Your task to perform on an android device: delete browsing data in the chrome app Image 0: 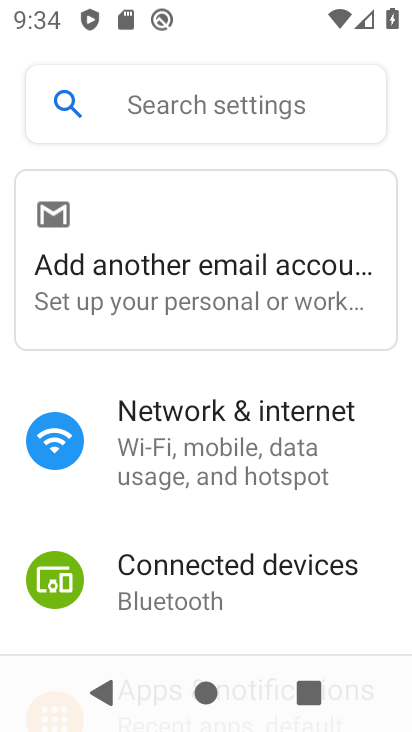
Step 0: press home button
Your task to perform on an android device: delete browsing data in the chrome app Image 1: 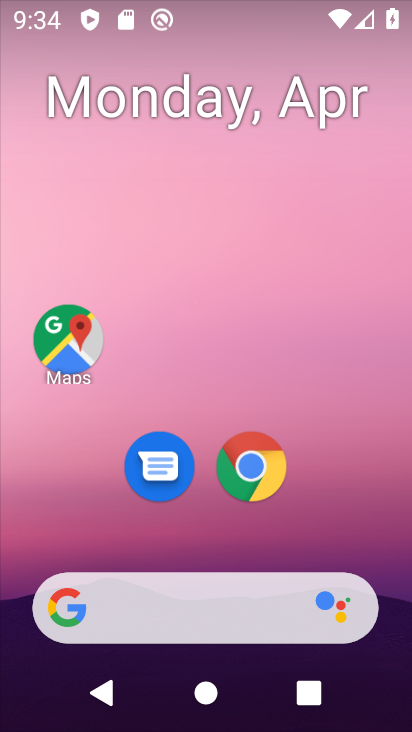
Step 1: click (255, 467)
Your task to perform on an android device: delete browsing data in the chrome app Image 2: 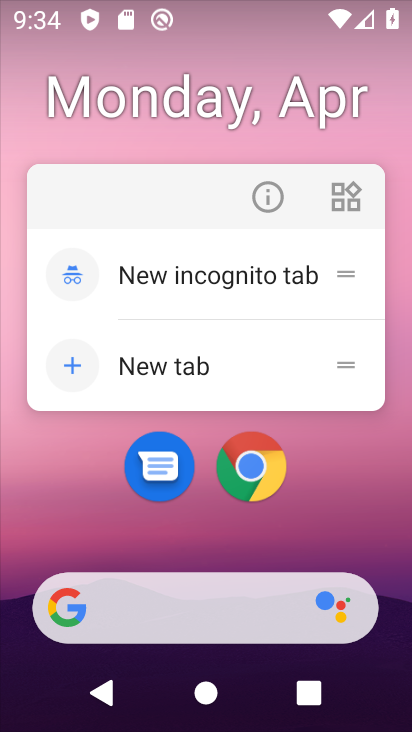
Step 2: click (255, 467)
Your task to perform on an android device: delete browsing data in the chrome app Image 3: 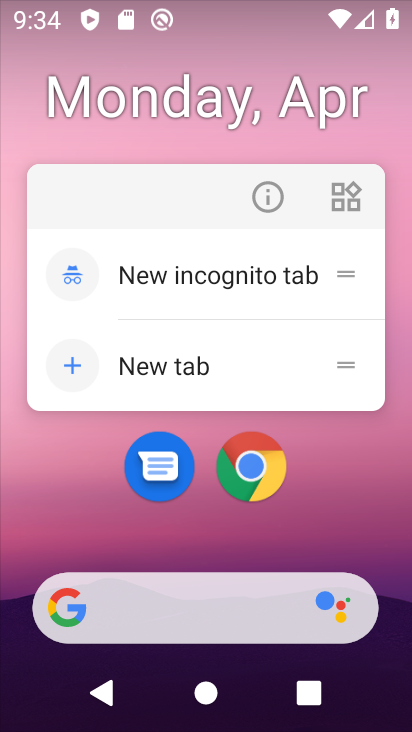
Step 3: click (255, 467)
Your task to perform on an android device: delete browsing data in the chrome app Image 4: 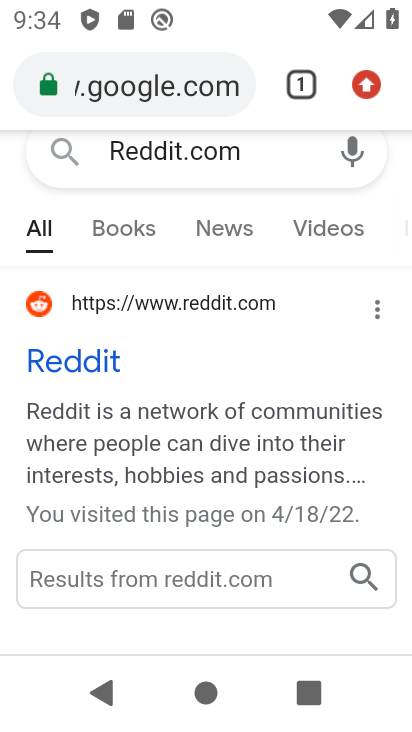
Step 4: click (373, 77)
Your task to perform on an android device: delete browsing data in the chrome app Image 5: 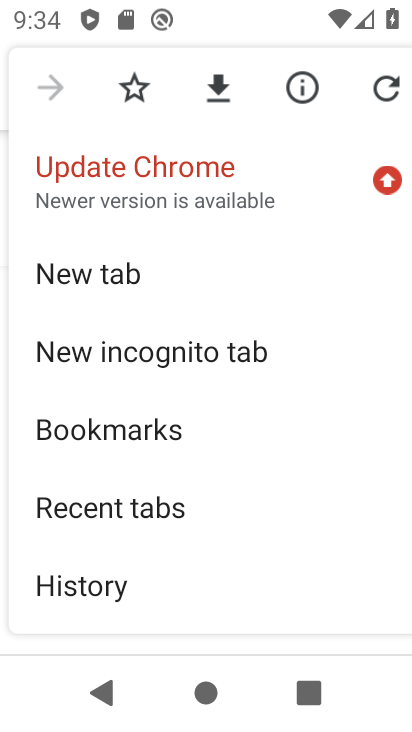
Step 5: drag from (241, 516) to (287, 313)
Your task to perform on an android device: delete browsing data in the chrome app Image 6: 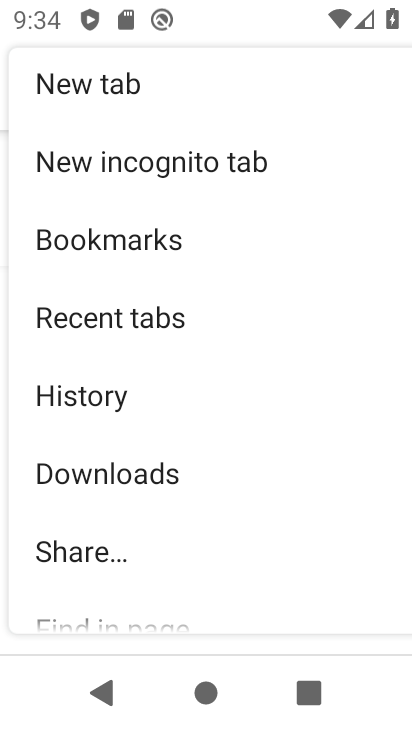
Step 6: drag from (228, 499) to (263, 356)
Your task to perform on an android device: delete browsing data in the chrome app Image 7: 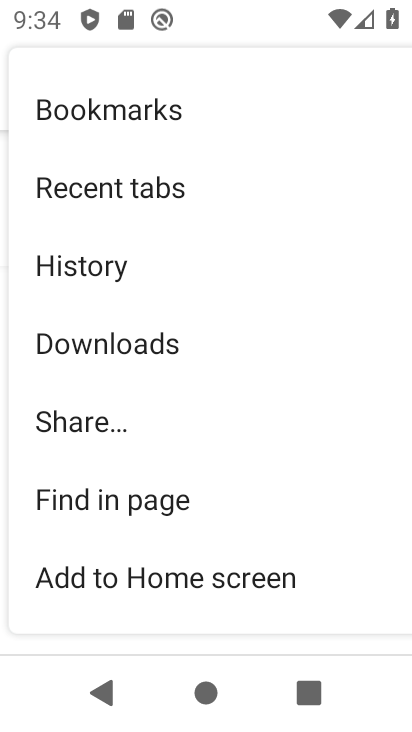
Step 7: drag from (214, 477) to (257, 350)
Your task to perform on an android device: delete browsing data in the chrome app Image 8: 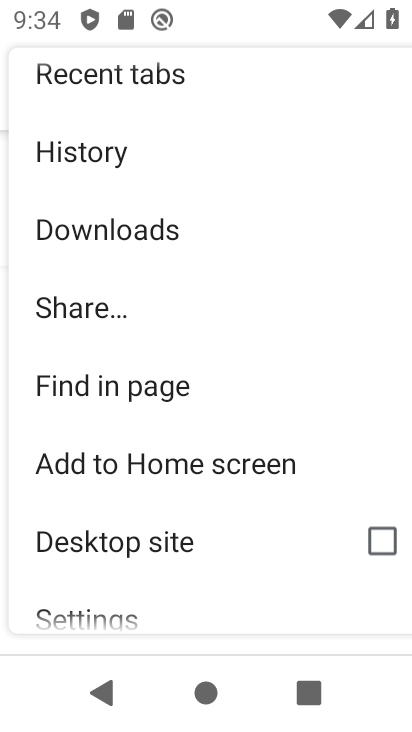
Step 8: drag from (210, 502) to (247, 359)
Your task to perform on an android device: delete browsing data in the chrome app Image 9: 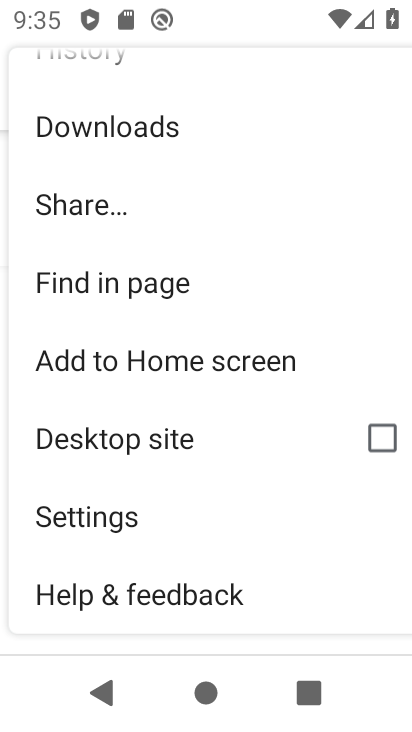
Step 9: click (113, 515)
Your task to perform on an android device: delete browsing data in the chrome app Image 10: 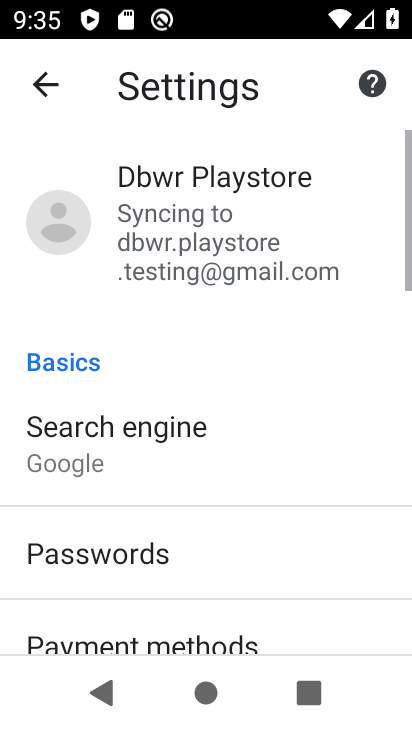
Step 10: drag from (174, 563) to (200, 388)
Your task to perform on an android device: delete browsing data in the chrome app Image 11: 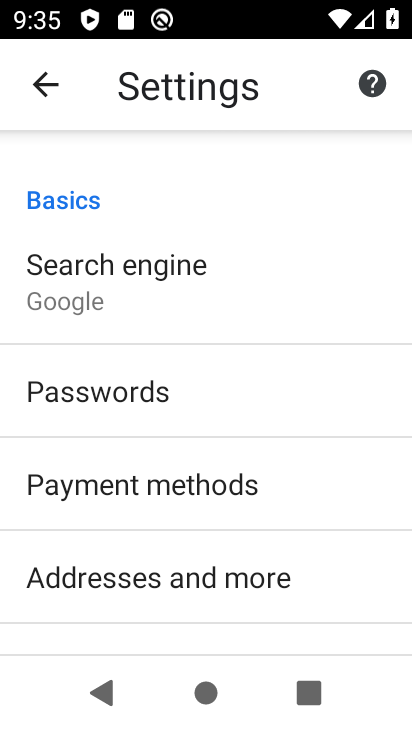
Step 11: drag from (217, 572) to (252, 448)
Your task to perform on an android device: delete browsing data in the chrome app Image 12: 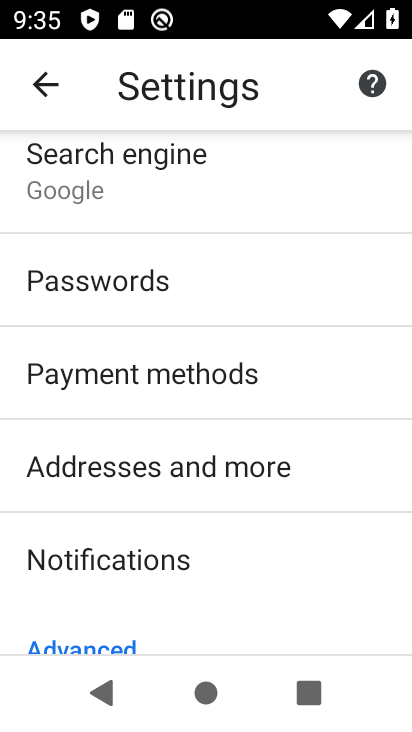
Step 12: drag from (222, 585) to (252, 442)
Your task to perform on an android device: delete browsing data in the chrome app Image 13: 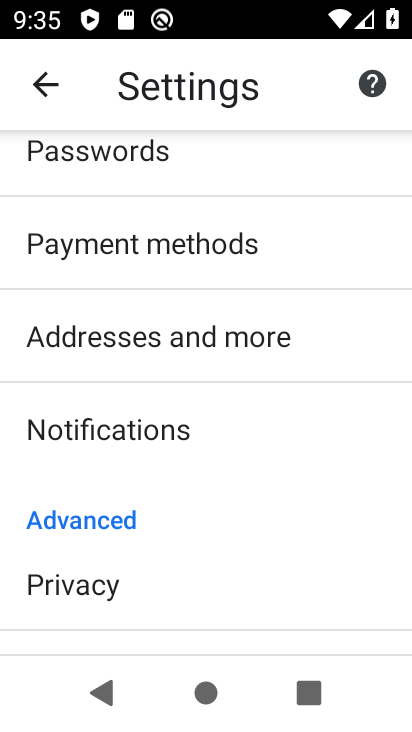
Step 13: drag from (263, 515) to (262, 422)
Your task to perform on an android device: delete browsing data in the chrome app Image 14: 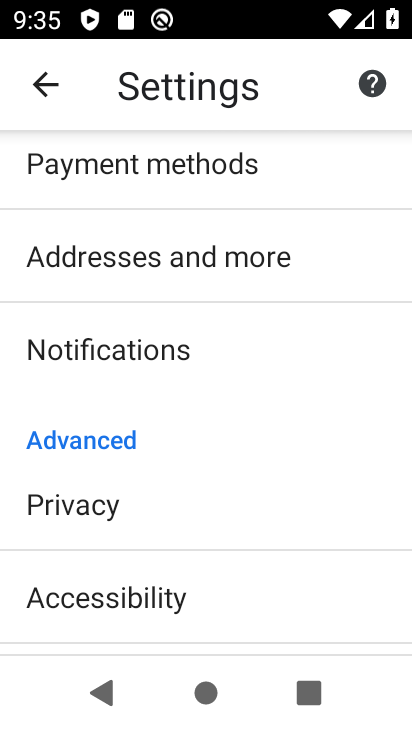
Step 14: click (104, 501)
Your task to perform on an android device: delete browsing data in the chrome app Image 15: 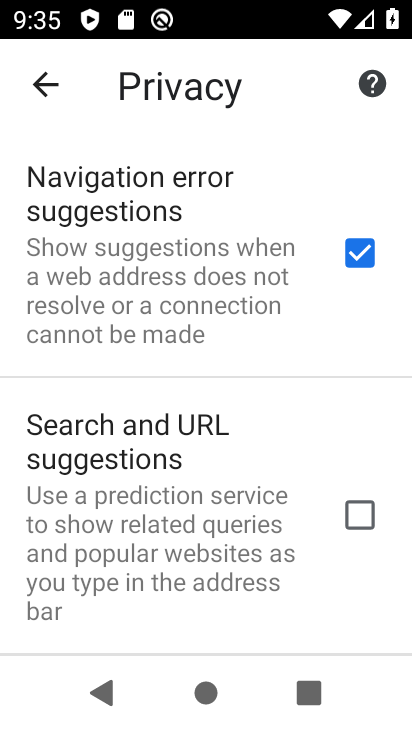
Step 15: drag from (149, 587) to (175, 306)
Your task to perform on an android device: delete browsing data in the chrome app Image 16: 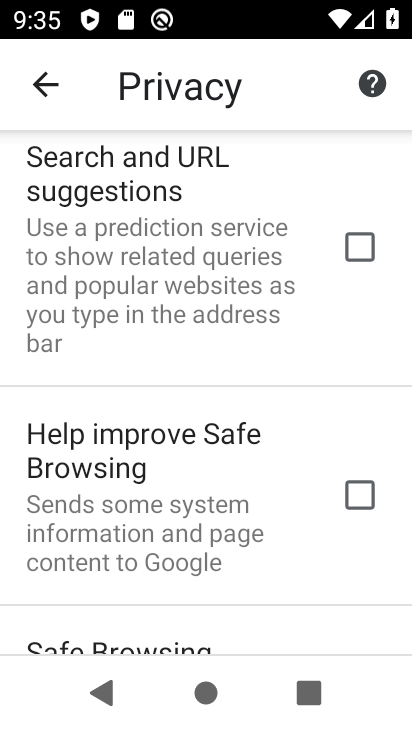
Step 16: drag from (142, 519) to (174, 281)
Your task to perform on an android device: delete browsing data in the chrome app Image 17: 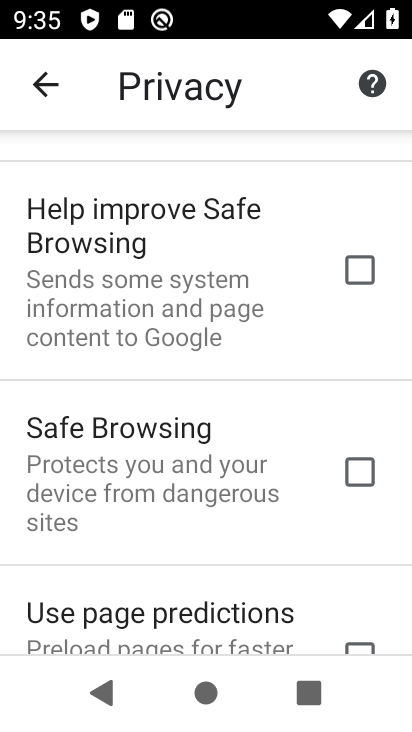
Step 17: drag from (153, 487) to (211, 258)
Your task to perform on an android device: delete browsing data in the chrome app Image 18: 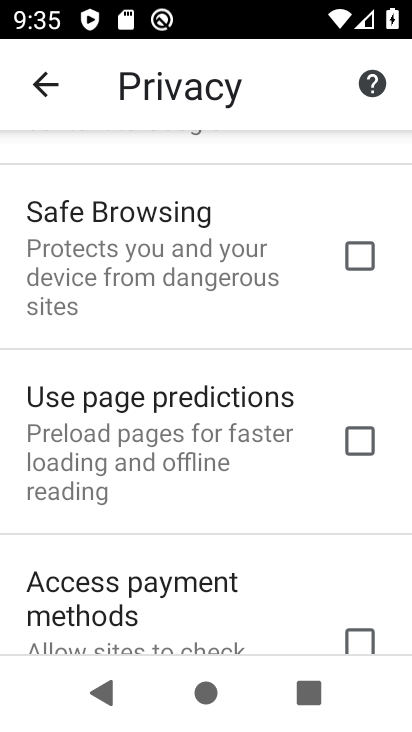
Step 18: drag from (152, 506) to (211, 343)
Your task to perform on an android device: delete browsing data in the chrome app Image 19: 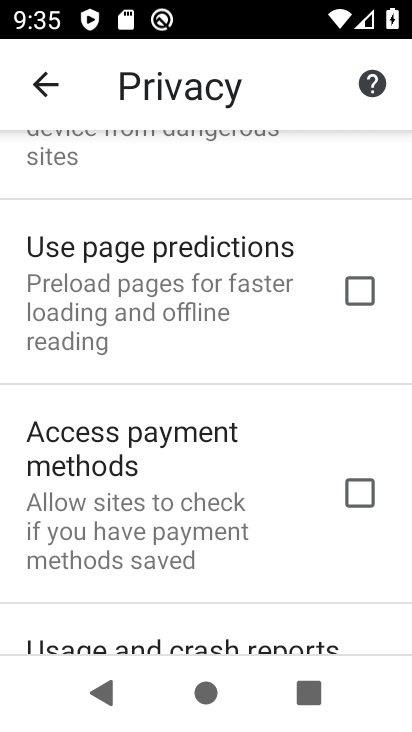
Step 19: drag from (144, 521) to (193, 298)
Your task to perform on an android device: delete browsing data in the chrome app Image 20: 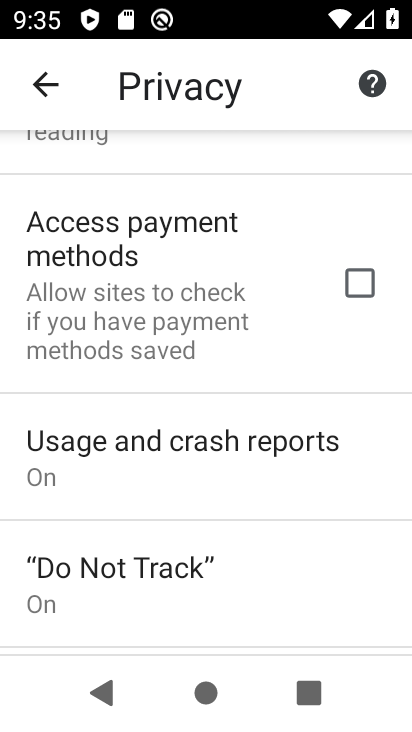
Step 20: drag from (217, 573) to (257, 400)
Your task to perform on an android device: delete browsing data in the chrome app Image 21: 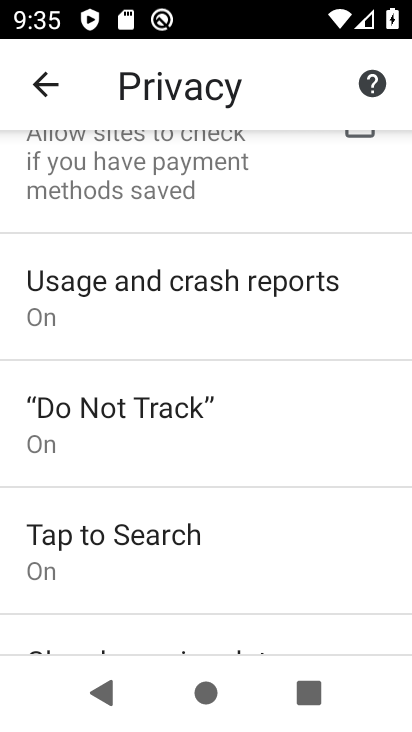
Step 21: drag from (156, 554) to (193, 374)
Your task to perform on an android device: delete browsing data in the chrome app Image 22: 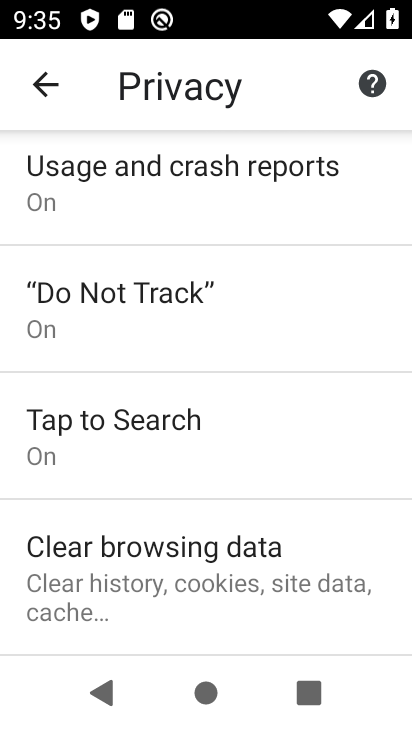
Step 22: drag from (174, 580) to (205, 489)
Your task to perform on an android device: delete browsing data in the chrome app Image 23: 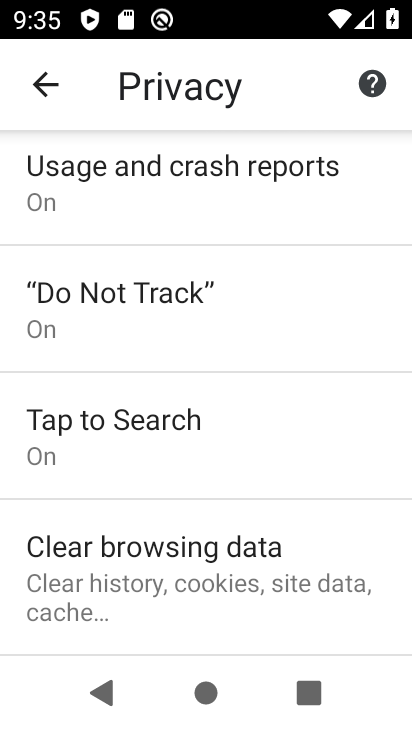
Step 23: click (207, 546)
Your task to perform on an android device: delete browsing data in the chrome app Image 24: 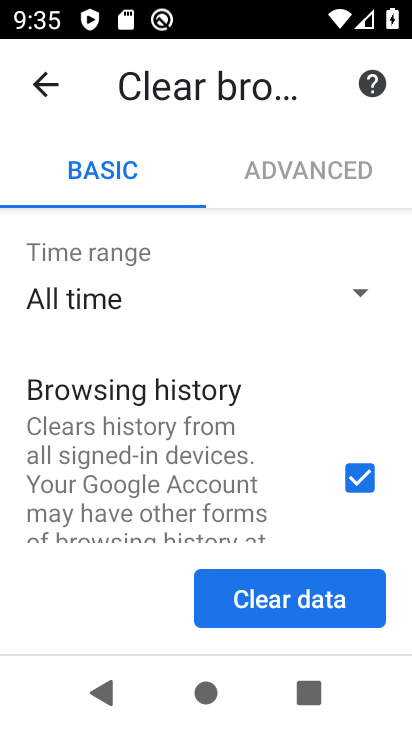
Step 24: click (272, 598)
Your task to perform on an android device: delete browsing data in the chrome app Image 25: 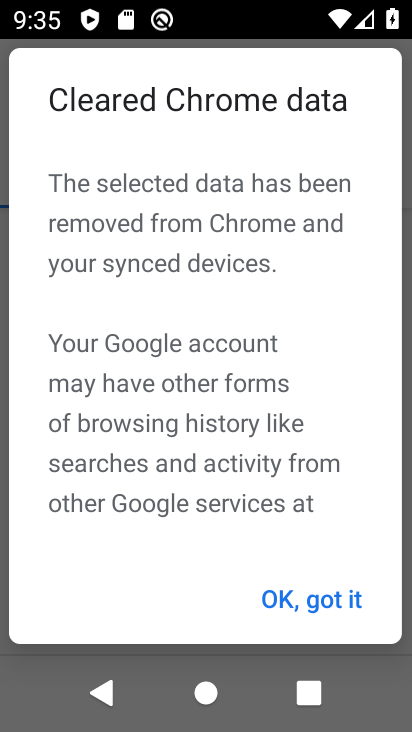
Step 25: click (272, 598)
Your task to perform on an android device: delete browsing data in the chrome app Image 26: 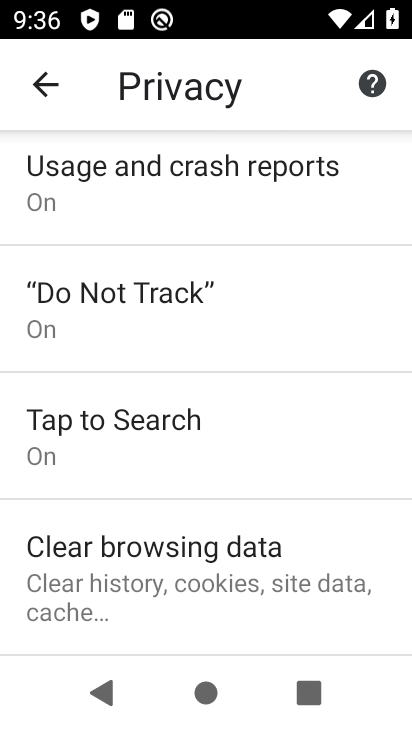
Step 26: task complete